Your task to perform on an android device: What's on my calendar tomorrow? Image 0: 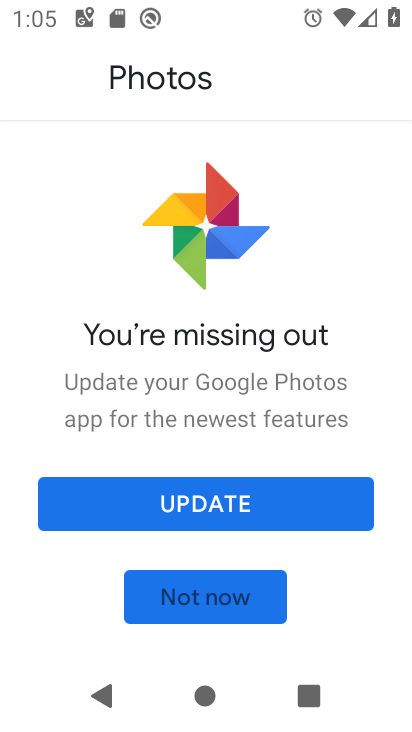
Step 0: press home button
Your task to perform on an android device: What's on my calendar tomorrow? Image 1: 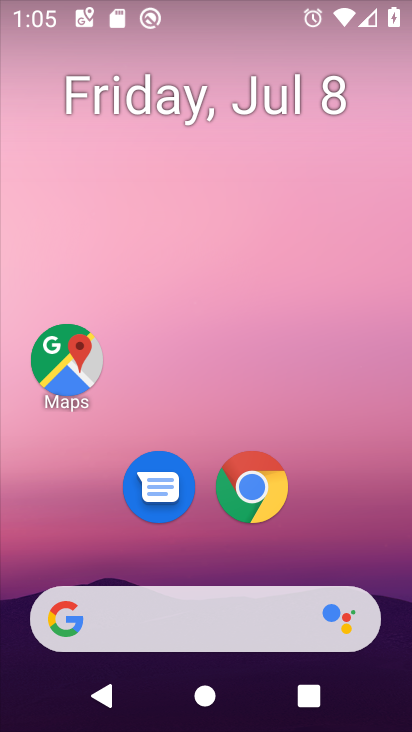
Step 1: drag from (357, 527) to (348, 132)
Your task to perform on an android device: What's on my calendar tomorrow? Image 2: 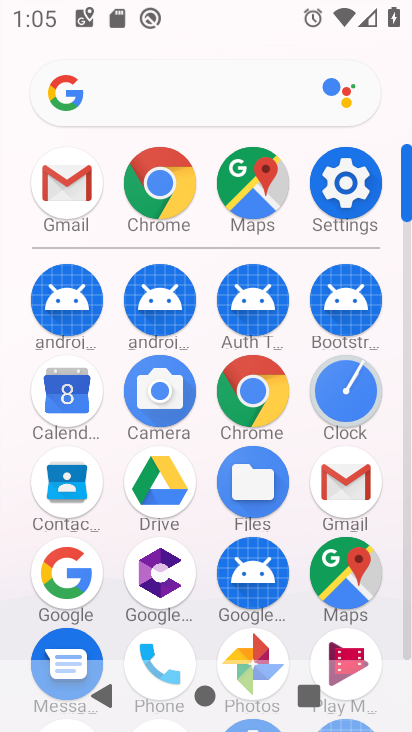
Step 2: click (74, 391)
Your task to perform on an android device: What's on my calendar tomorrow? Image 3: 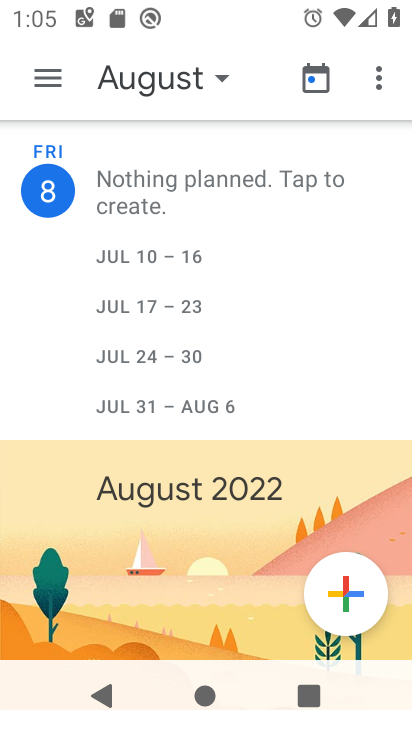
Step 3: click (203, 81)
Your task to perform on an android device: What's on my calendar tomorrow? Image 4: 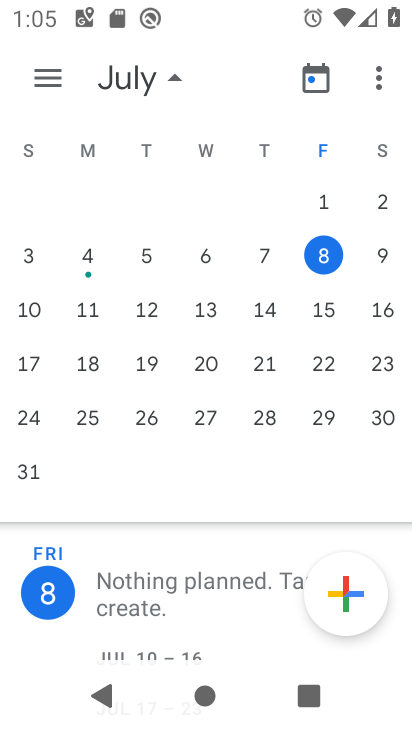
Step 4: click (386, 253)
Your task to perform on an android device: What's on my calendar tomorrow? Image 5: 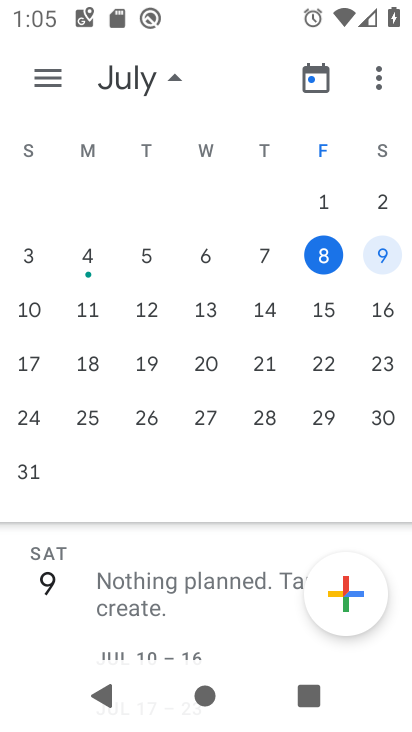
Step 5: task complete